Your task to perform on an android device: stop showing notifications on the lock screen Image 0: 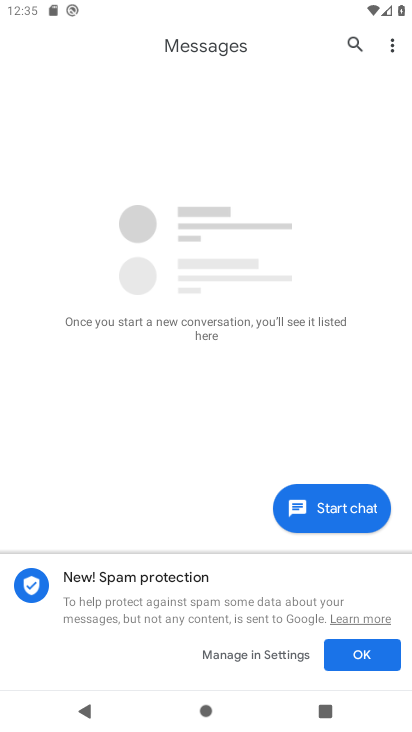
Step 0: press home button
Your task to perform on an android device: stop showing notifications on the lock screen Image 1: 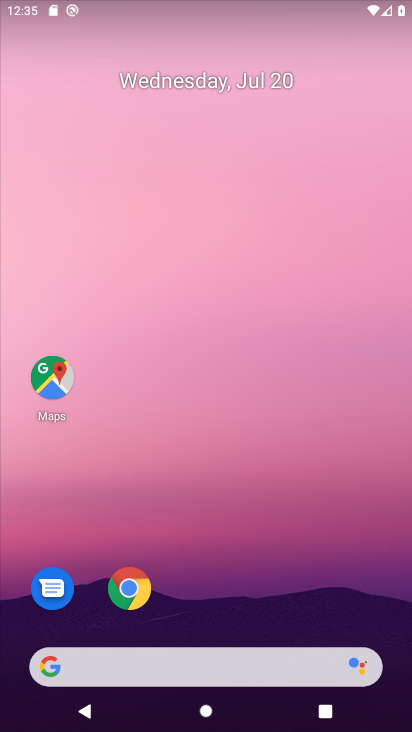
Step 1: drag from (237, 603) to (236, 217)
Your task to perform on an android device: stop showing notifications on the lock screen Image 2: 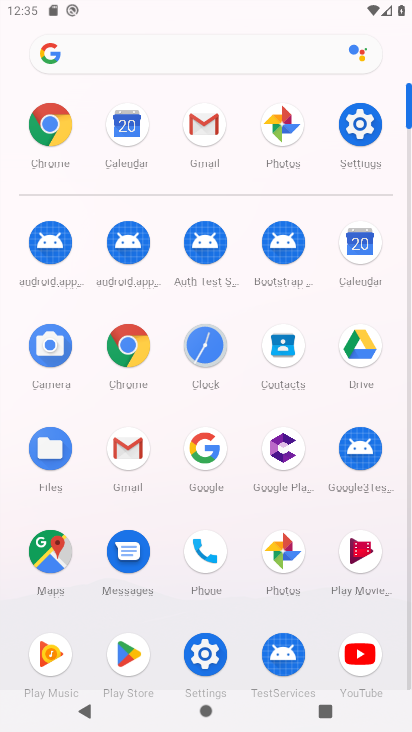
Step 2: click (372, 118)
Your task to perform on an android device: stop showing notifications on the lock screen Image 3: 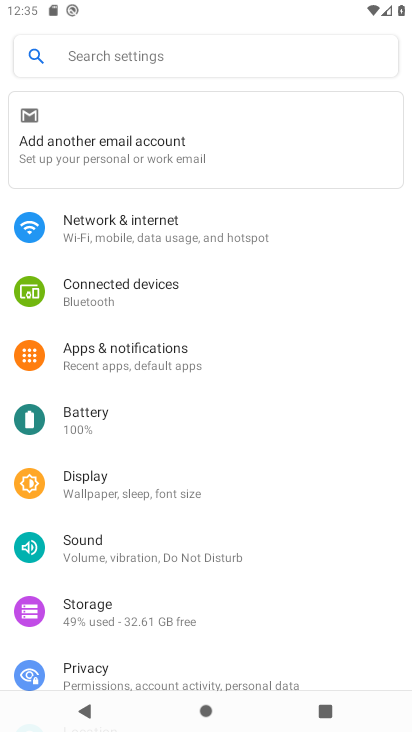
Step 3: click (144, 345)
Your task to perform on an android device: stop showing notifications on the lock screen Image 4: 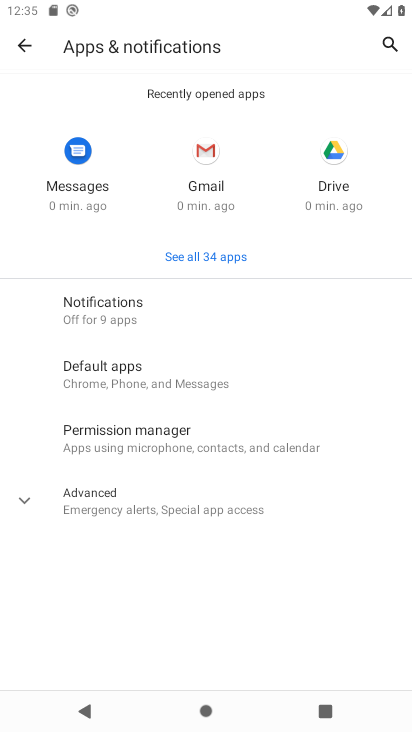
Step 4: click (139, 327)
Your task to perform on an android device: stop showing notifications on the lock screen Image 5: 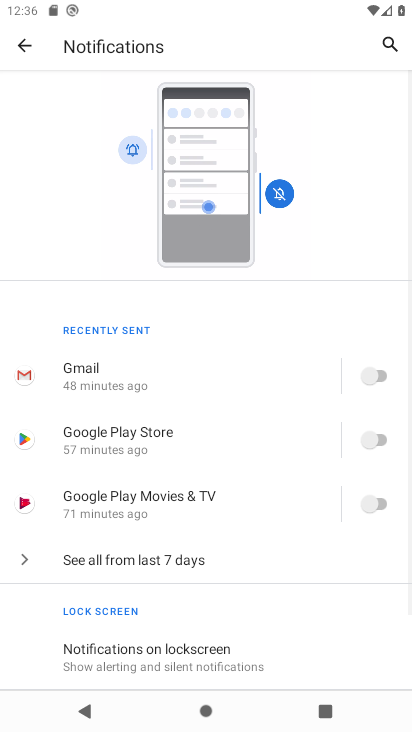
Step 5: click (168, 646)
Your task to perform on an android device: stop showing notifications on the lock screen Image 6: 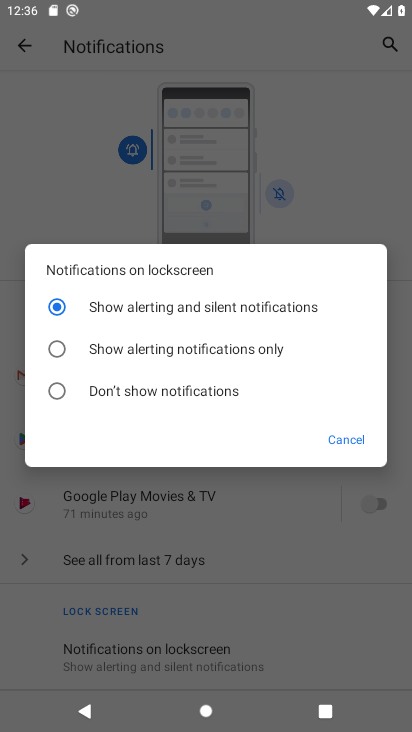
Step 6: click (151, 381)
Your task to perform on an android device: stop showing notifications on the lock screen Image 7: 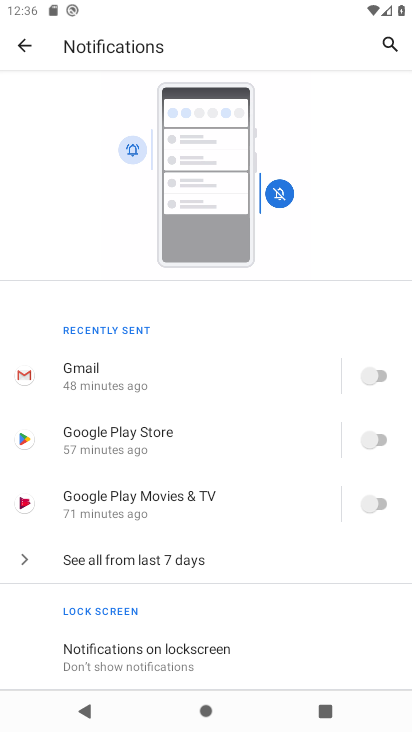
Step 7: task complete